Your task to perform on an android device: turn on javascript in the chrome app Image 0: 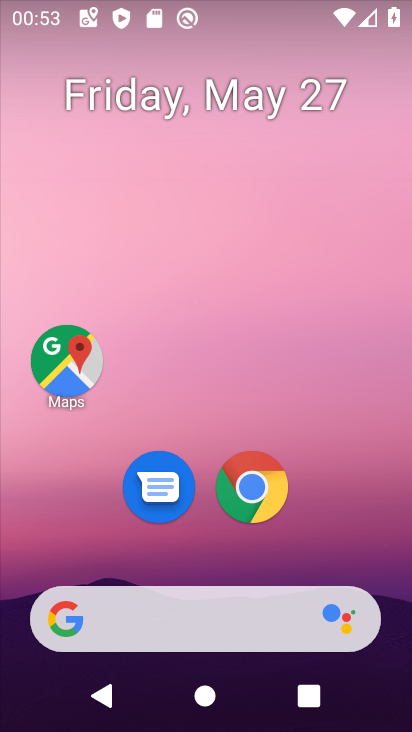
Step 0: click (249, 482)
Your task to perform on an android device: turn on javascript in the chrome app Image 1: 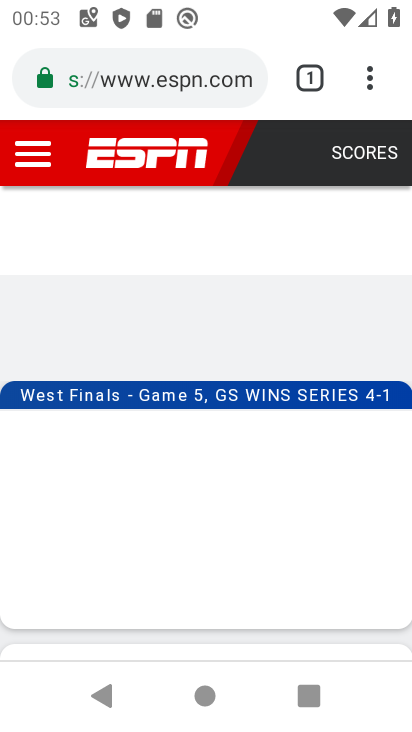
Step 1: click (368, 78)
Your task to perform on an android device: turn on javascript in the chrome app Image 2: 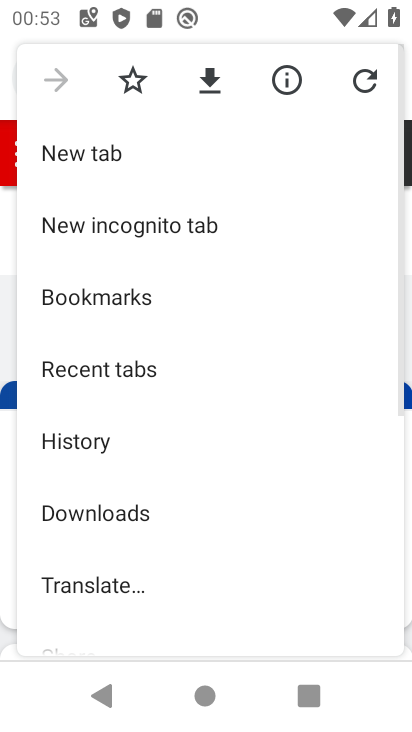
Step 2: drag from (201, 573) to (224, 177)
Your task to perform on an android device: turn on javascript in the chrome app Image 3: 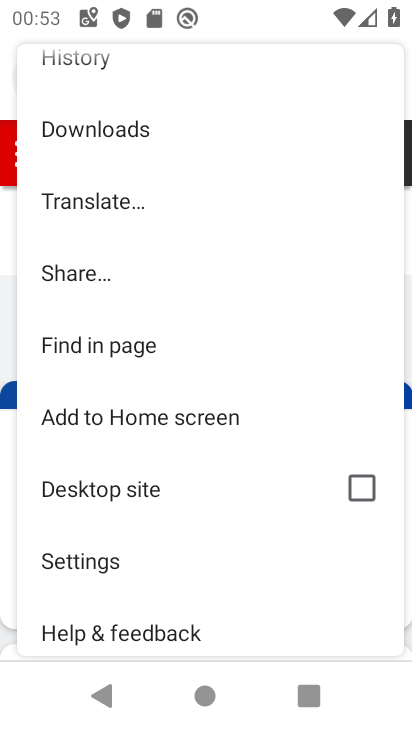
Step 3: click (95, 557)
Your task to perform on an android device: turn on javascript in the chrome app Image 4: 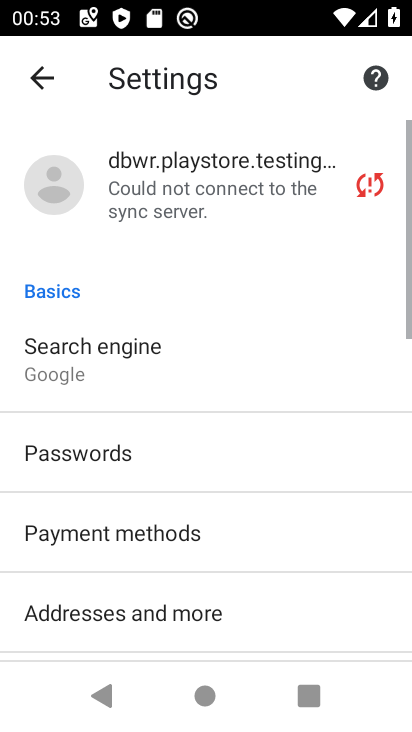
Step 4: drag from (286, 466) to (289, 249)
Your task to perform on an android device: turn on javascript in the chrome app Image 5: 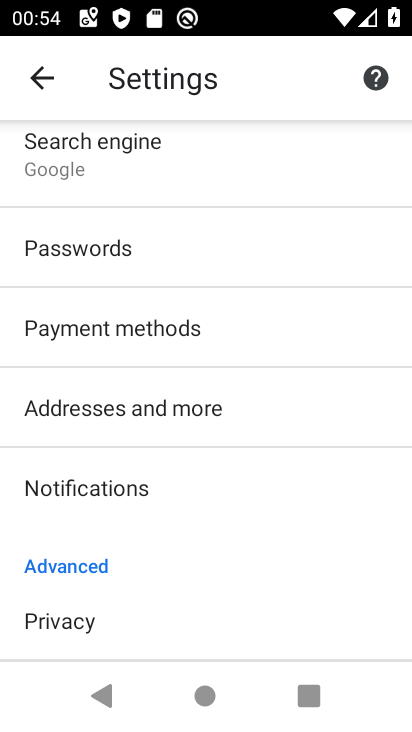
Step 5: drag from (246, 609) to (238, 280)
Your task to perform on an android device: turn on javascript in the chrome app Image 6: 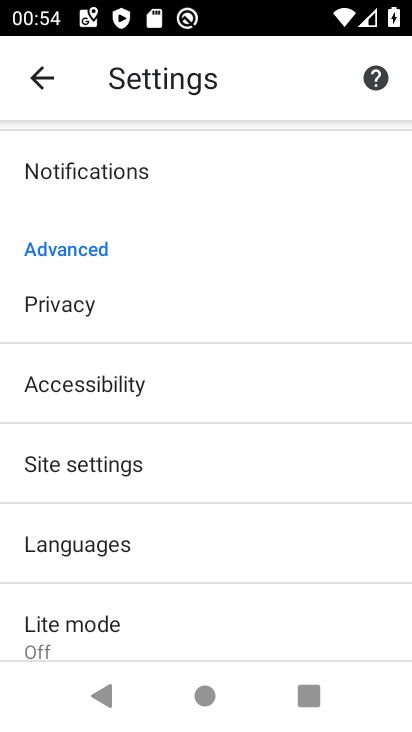
Step 6: click (100, 475)
Your task to perform on an android device: turn on javascript in the chrome app Image 7: 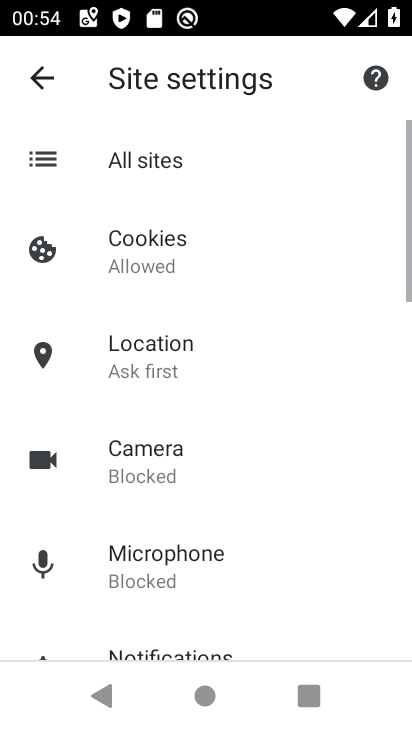
Step 7: drag from (299, 597) to (281, 220)
Your task to perform on an android device: turn on javascript in the chrome app Image 8: 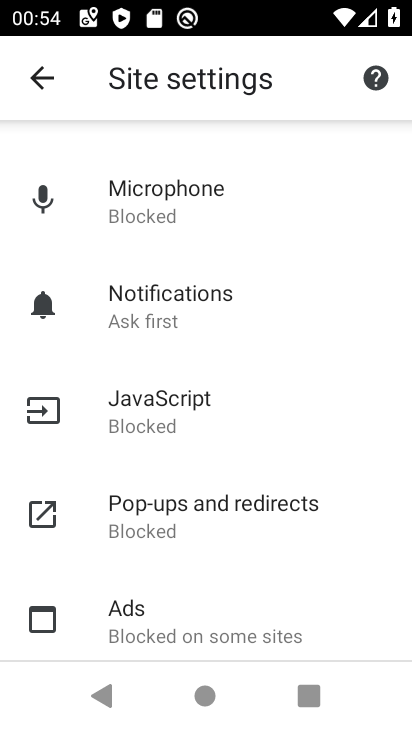
Step 8: click (165, 406)
Your task to perform on an android device: turn on javascript in the chrome app Image 9: 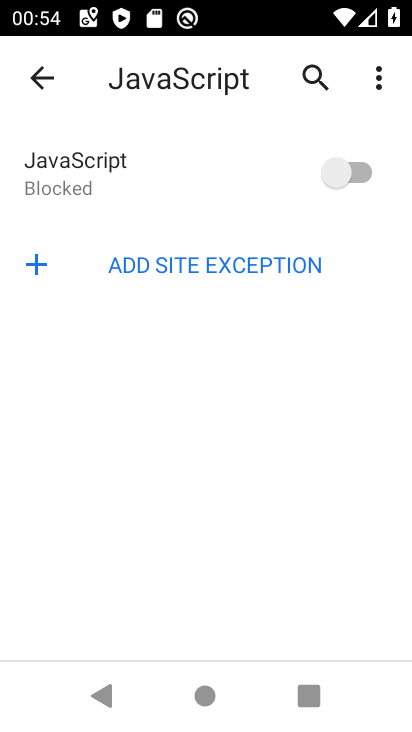
Step 9: click (354, 178)
Your task to perform on an android device: turn on javascript in the chrome app Image 10: 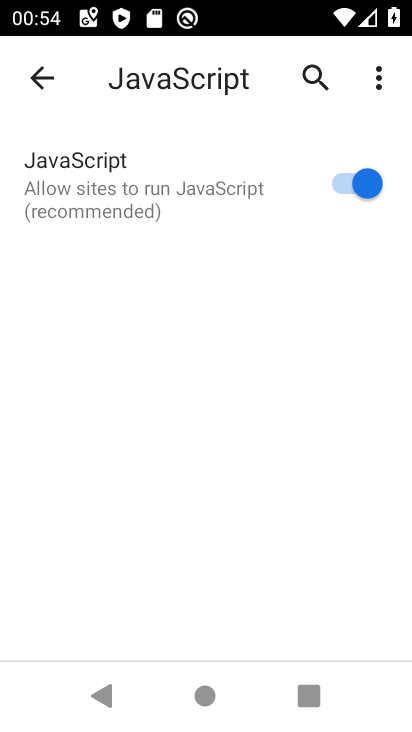
Step 10: task complete